Your task to perform on an android device: Search for Italian restaurants on Maps Image 0: 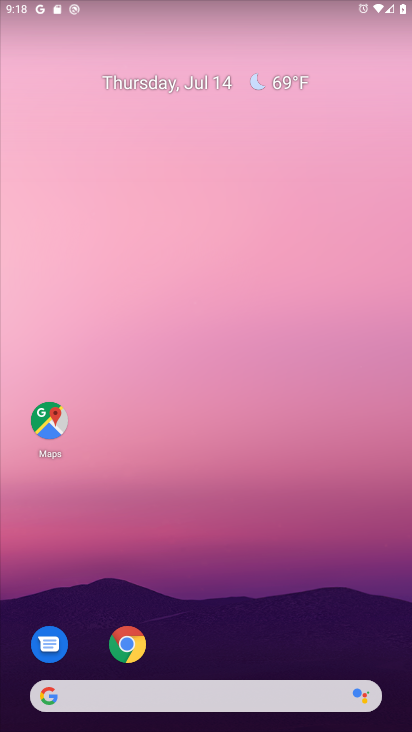
Step 0: click (47, 414)
Your task to perform on an android device: Search for Italian restaurants on Maps Image 1: 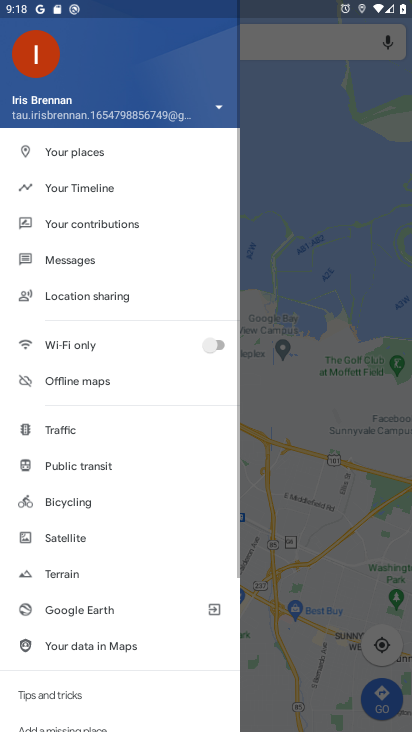
Step 1: click (292, 225)
Your task to perform on an android device: Search for Italian restaurants on Maps Image 2: 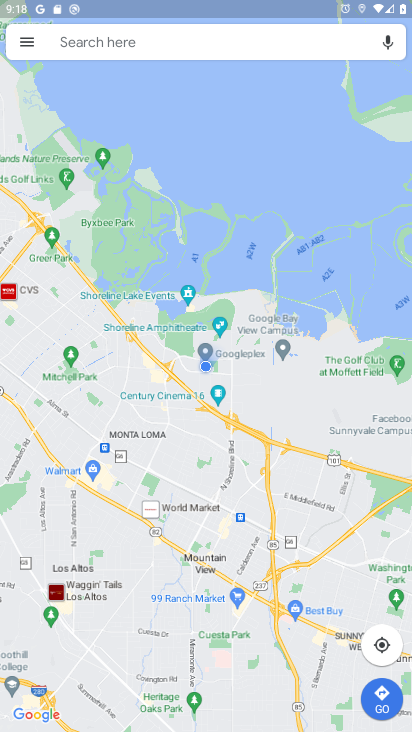
Step 2: click (179, 51)
Your task to perform on an android device: Search for Italian restaurants on Maps Image 3: 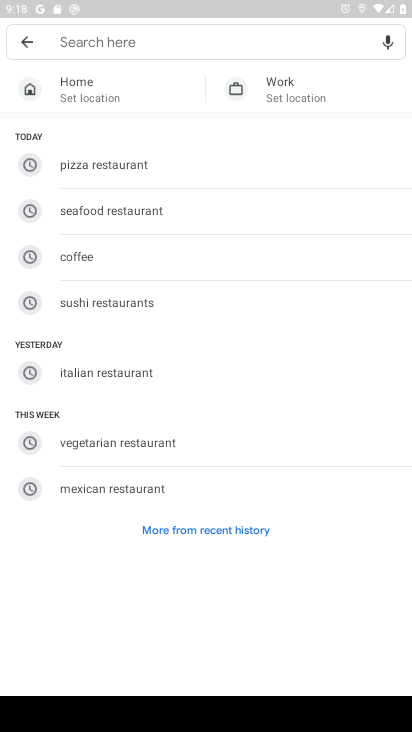
Step 3: type "italian restgaurant"
Your task to perform on an android device: Search for Italian restaurants on Maps Image 4: 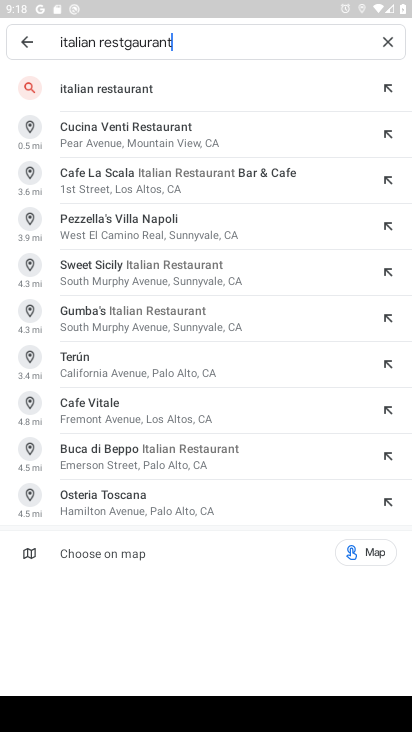
Step 4: click (135, 102)
Your task to perform on an android device: Search for Italian restaurants on Maps Image 5: 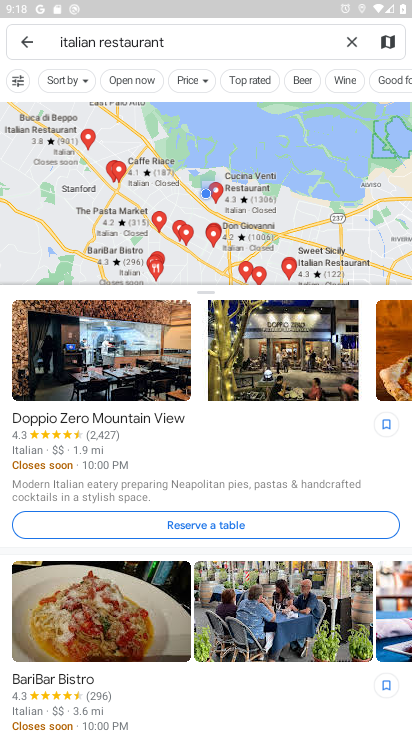
Step 5: task complete